Your task to perform on an android device: check storage Image 0: 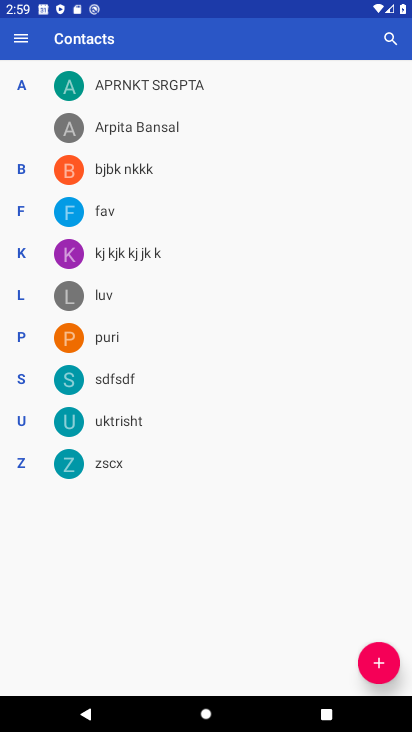
Step 0: press home button
Your task to perform on an android device: check storage Image 1: 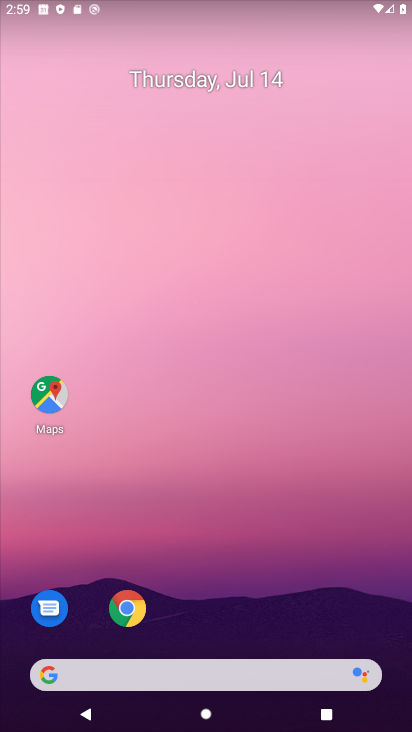
Step 1: drag from (276, 554) to (258, 163)
Your task to perform on an android device: check storage Image 2: 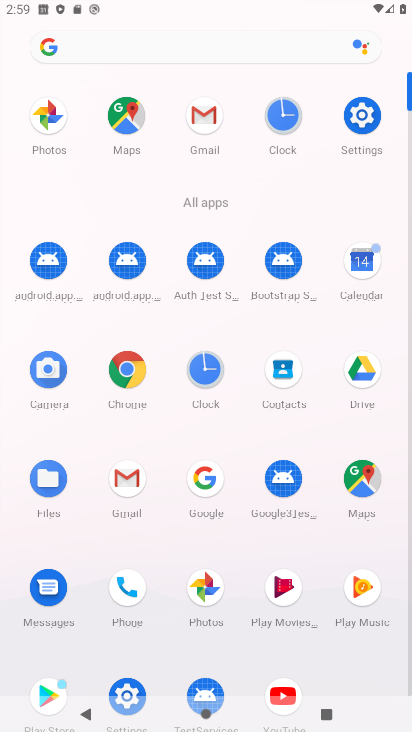
Step 2: click (366, 105)
Your task to perform on an android device: check storage Image 3: 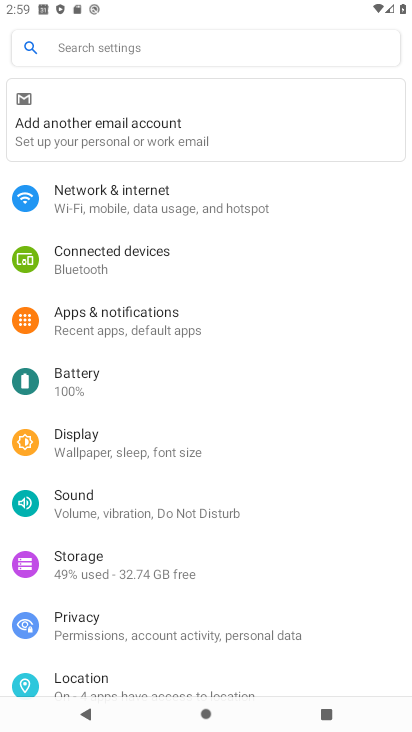
Step 3: click (130, 561)
Your task to perform on an android device: check storage Image 4: 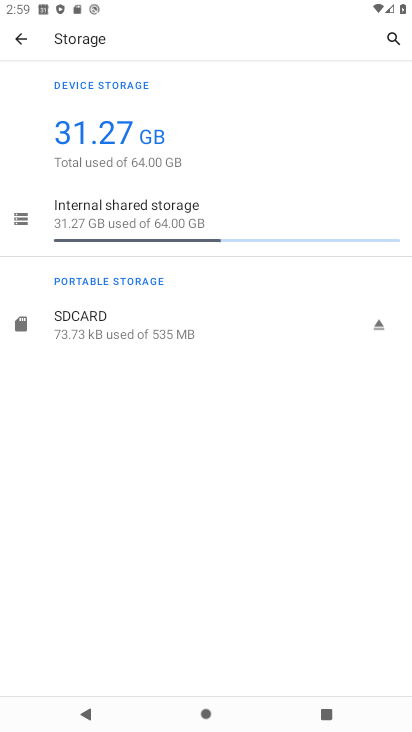
Step 4: task complete